Your task to perform on an android device: Go to eBay Image 0: 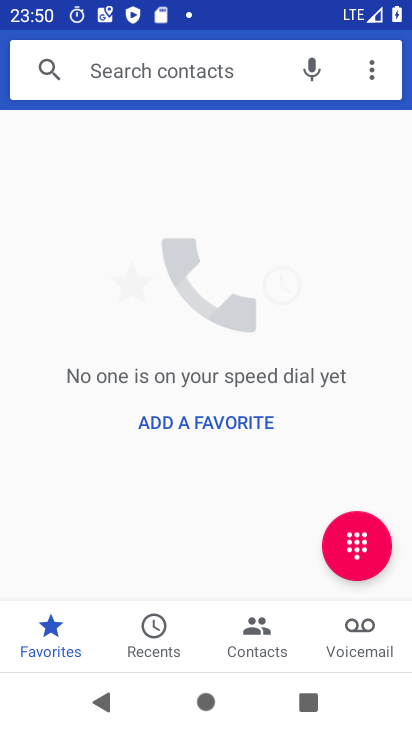
Step 0: press home button
Your task to perform on an android device: Go to eBay Image 1: 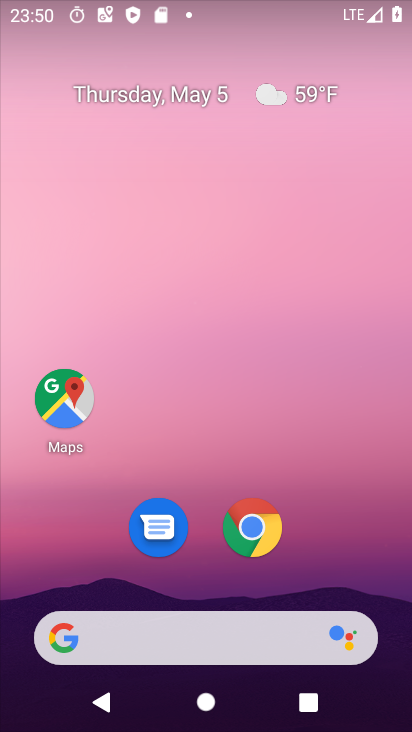
Step 1: click (251, 517)
Your task to perform on an android device: Go to eBay Image 2: 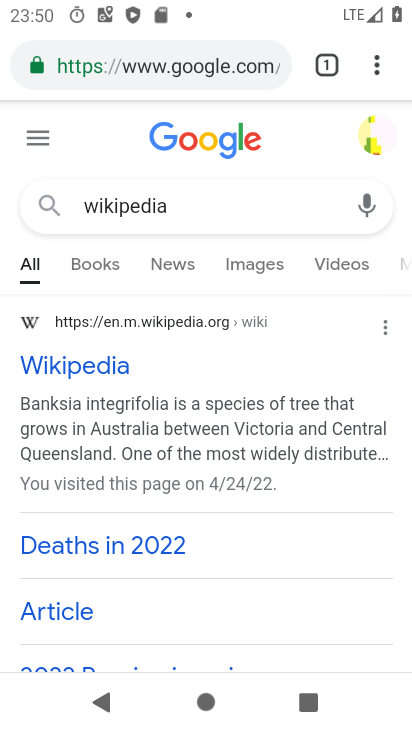
Step 2: click (203, 72)
Your task to perform on an android device: Go to eBay Image 3: 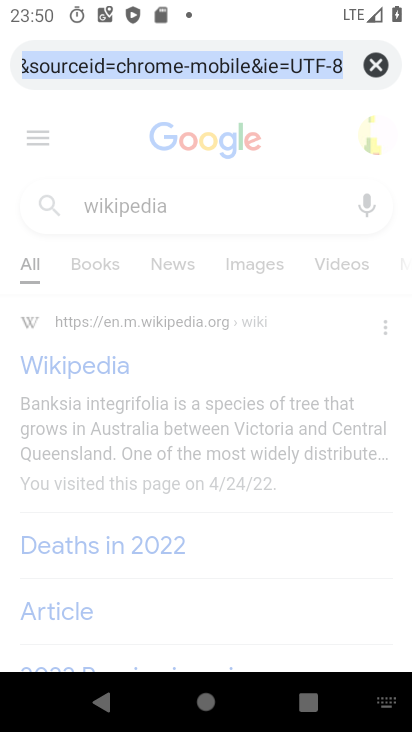
Step 3: type "eBay"
Your task to perform on an android device: Go to eBay Image 4: 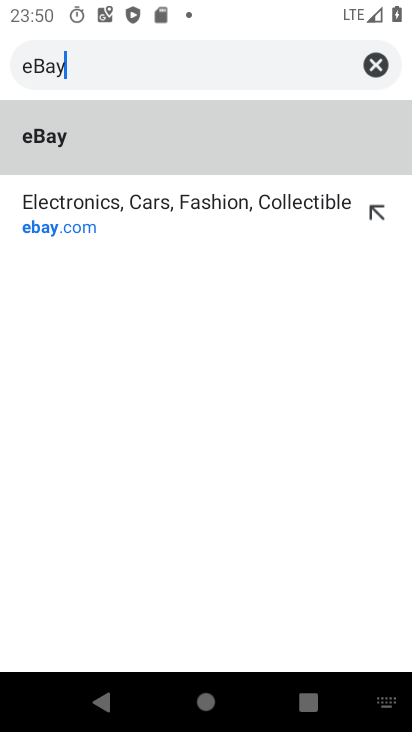
Step 4: click (160, 153)
Your task to perform on an android device: Go to eBay Image 5: 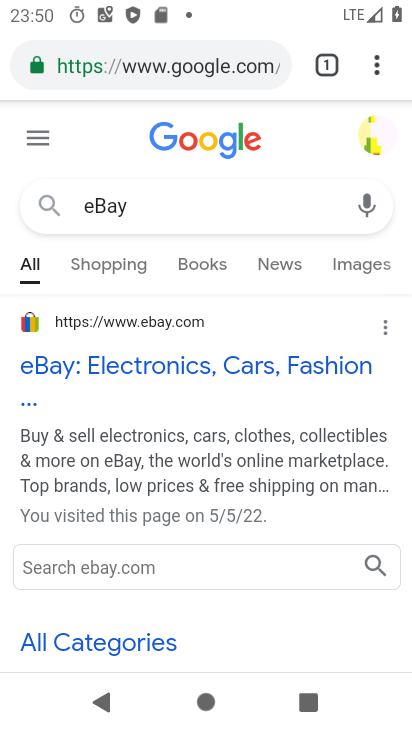
Step 5: task complete